Your task to perform on an android device: remove spam from my inbox in the gmail app Image 0: 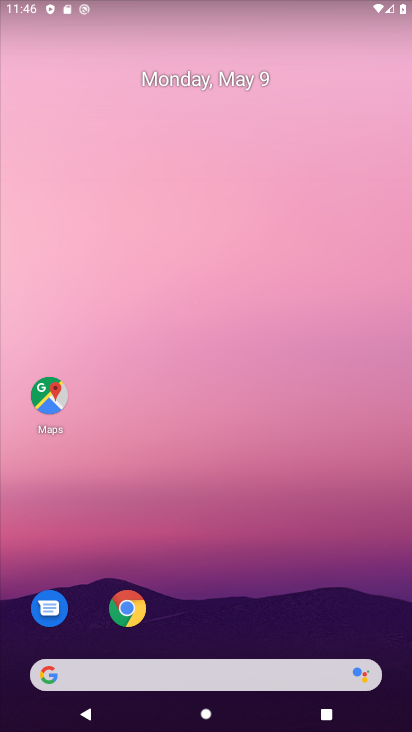
Step 0: drag from (299, 561) to (187, 7)
Your task to perform on an android device: remove spam from my inbox in the gmail app Image 1: 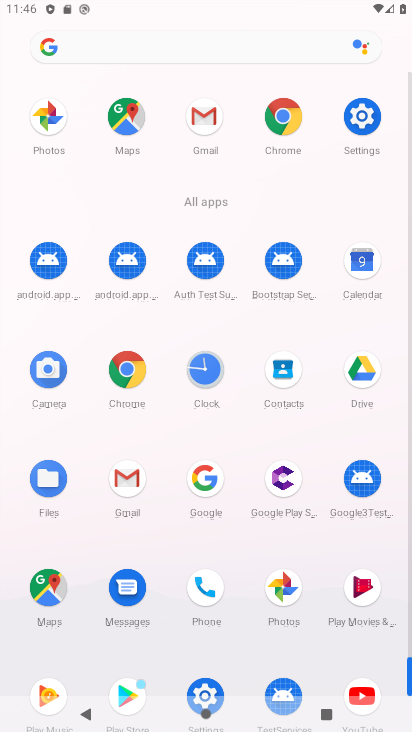
Step 1: click (203, 110)
Your task to perform on an android device: remove spam from my inbox in the gmail app Image 2: 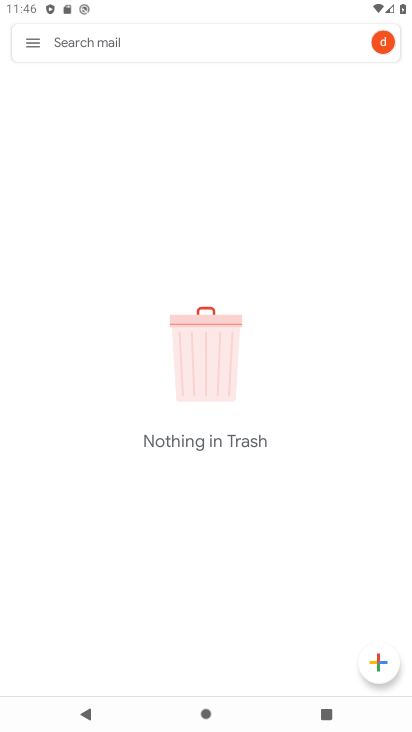
Step 2: click (36, 39)
Your task to perform on an android device: remove spam from my inbox in the gmail app Image 3: 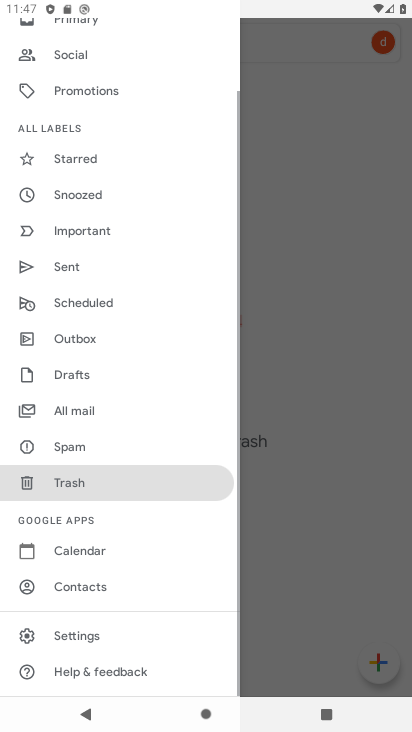
Step 3: drag from (124, 527) to (143, 132)
Your task to perform on an android device: remove spam from my inbox in the gmail app Image 4: 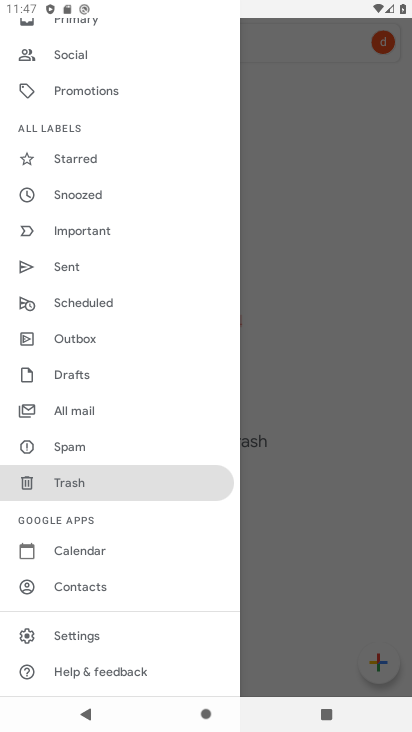
Step 4: drag from (118, 141) to (128, 570)
Your task to perform on an android device: remove spam from my inbox in the gmail app Image 5: 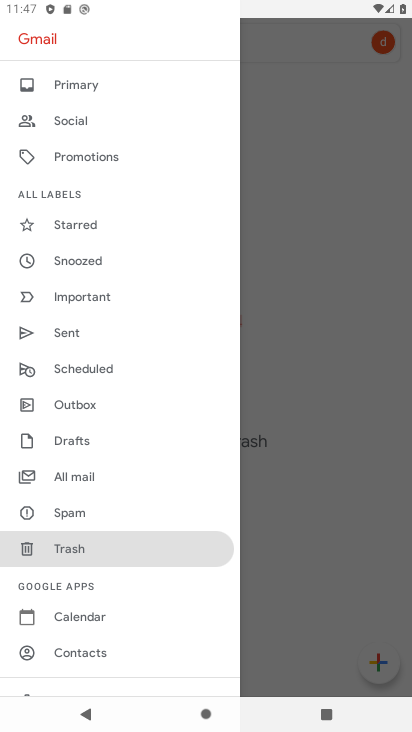
Step 5: click (91, 512)
Your task to perform on an android device: remove spam from my inbox in the gmail app Image 6: 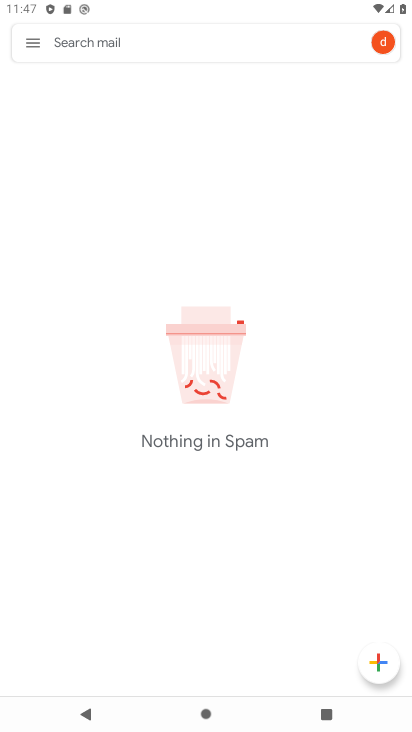
Step 6: task complete